Your task to perform on an android device: Open internet settings Image 0: 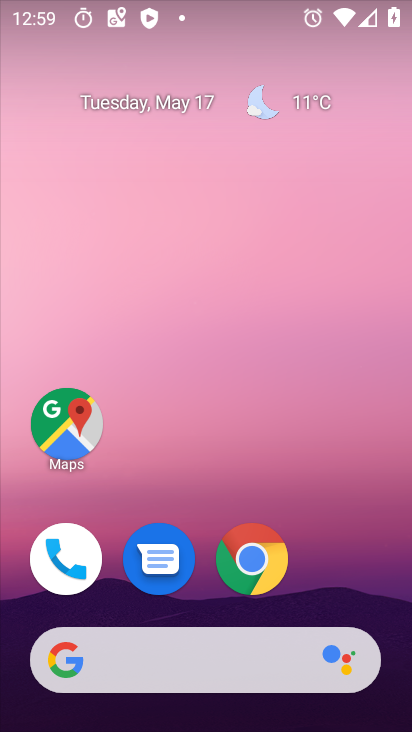
Step 0: drag from (340, 563) to (331, 156)
Your task to perform on an android device: Open internet settings Image 1: 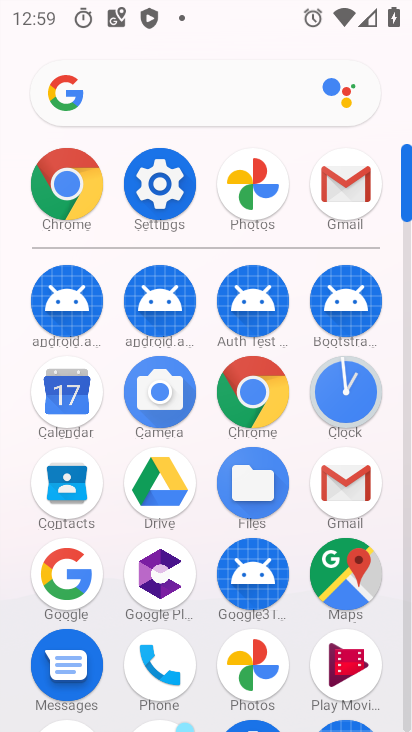
Step 1: click (151, 205)
Your task to perform on an android device: Open internet settings Image 2: 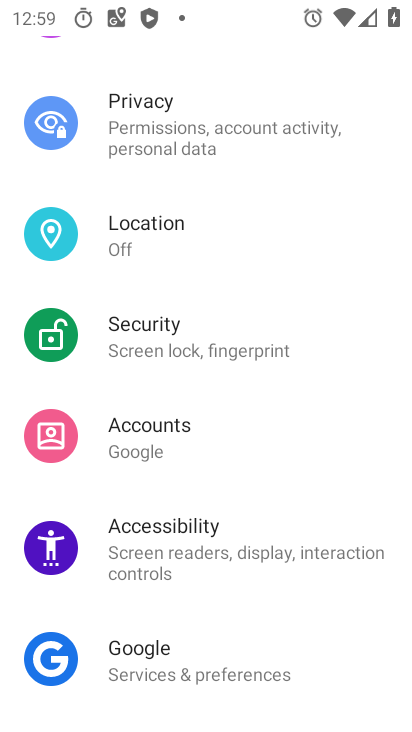
Step 2: drag from (226, 175) to (253, 660)
Your task to perform on an android device: Open internet settings Image 3: 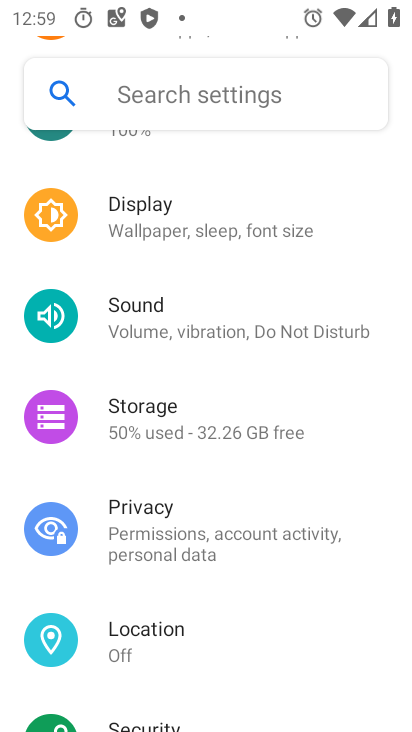
Step 3: drag from (219, 245) to (271, 652)
Your task to perform on an android device: Open internet settings Image 4: 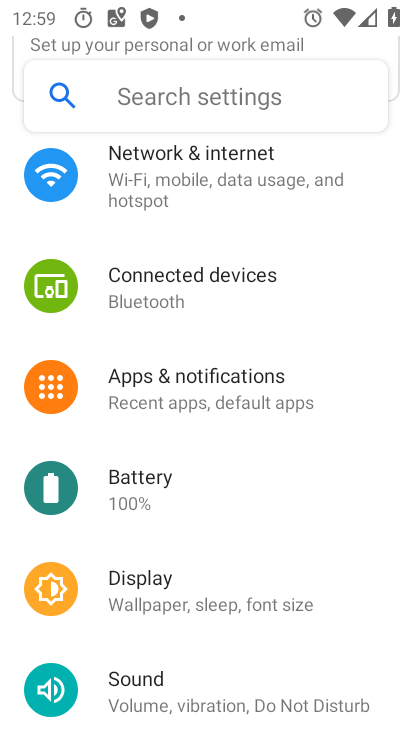
Step 4: drag from (166, 190) to (213, 476)
Your task to perform on an android device: Open internet settings Image 5: 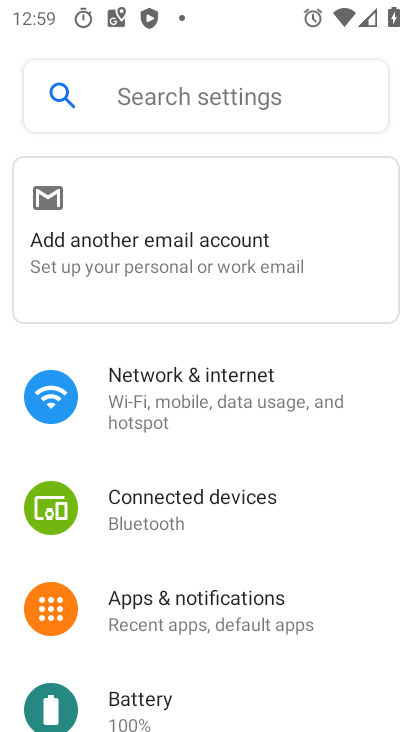
Step 5: click (185, 296)
Your task to perform on an android device: Open internet settings Image 6: 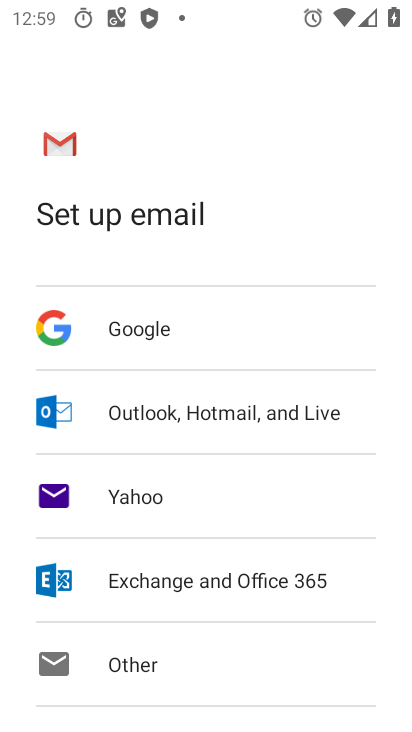
Step 6: press home button
Your task to perform on an android device: Open internet settings Image 7: 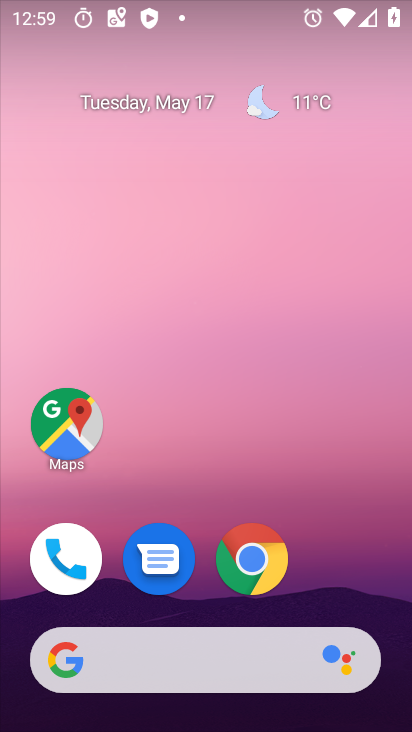
Step 7: drag from (374, 557) to (324, 178)
Your task to perform on an android device: Open internet settings Image 8: 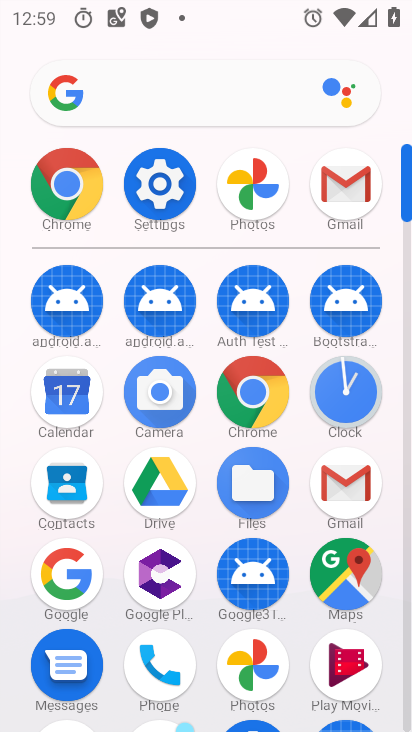
Step 8: click (174, 200)
Your task to perform on an android device: Open internet settings Image 9: 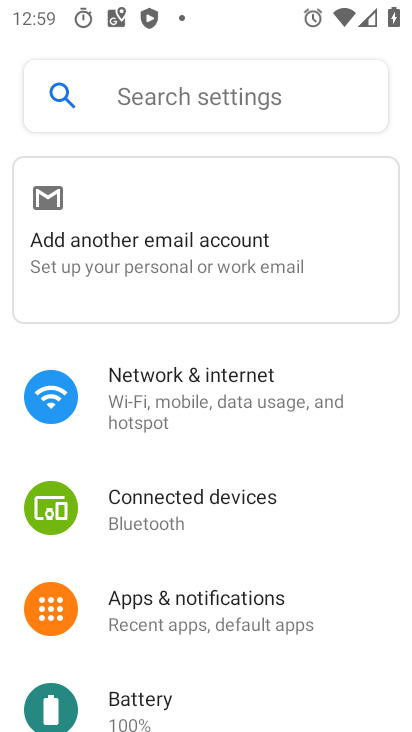
Step 9: click (163, 406)
Your task to perform on an android device: Open internet settings Image 10: 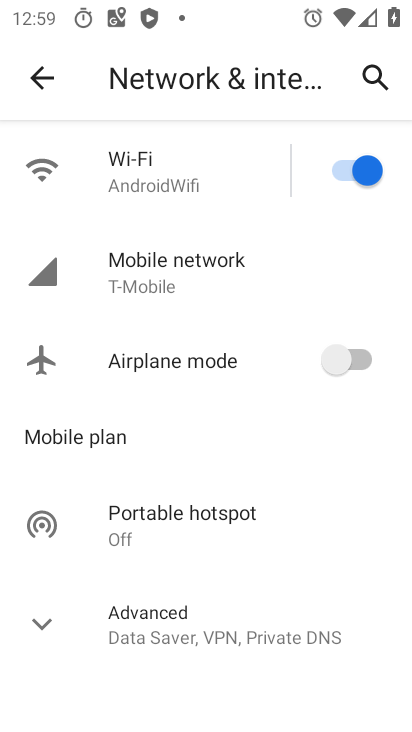
Step 10: task complete